Your task to perform on an android device: check data usage Image 0: 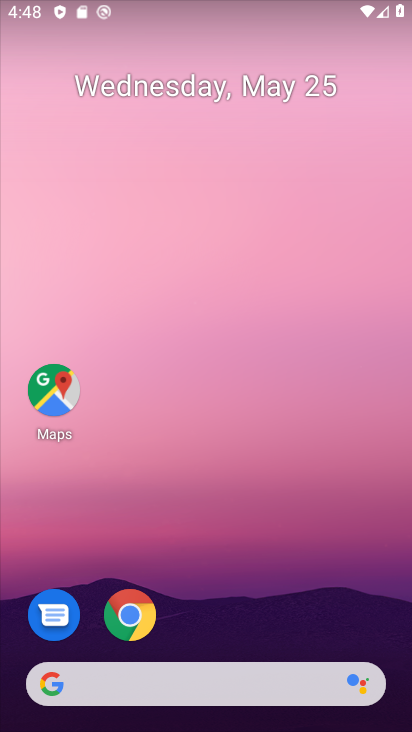
Step 0: press home button
Your task to perform on an android device: check data usage Image 1: 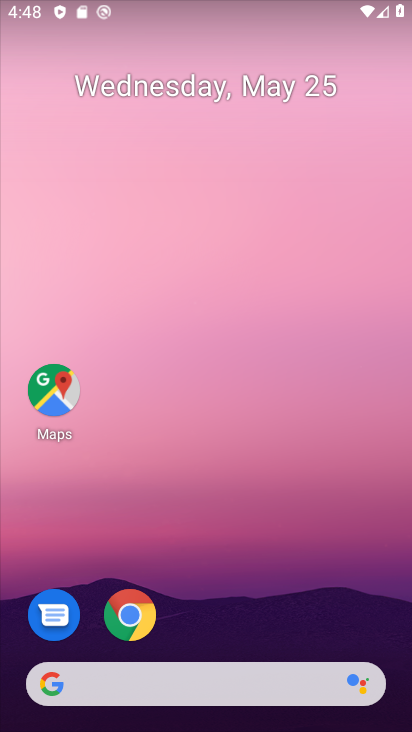
Step 1: drag from (260, 610) to (252, 52)
Your task to perform on an android device: check data usage Image 2: 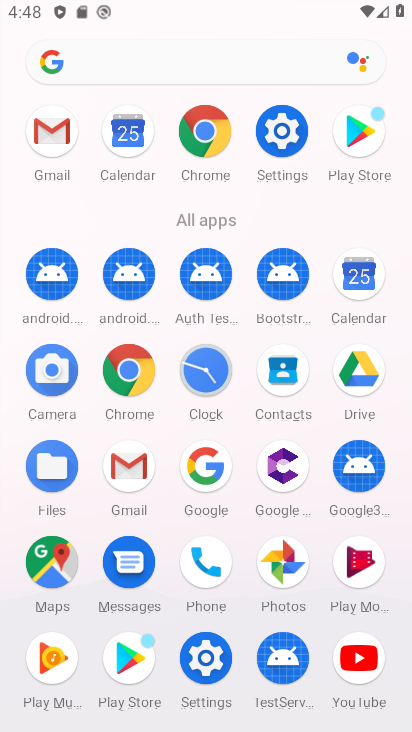
Step 2: drag from (274, 36) to (171, 699)
Your task to perform on an android device: check data usage Image 3: 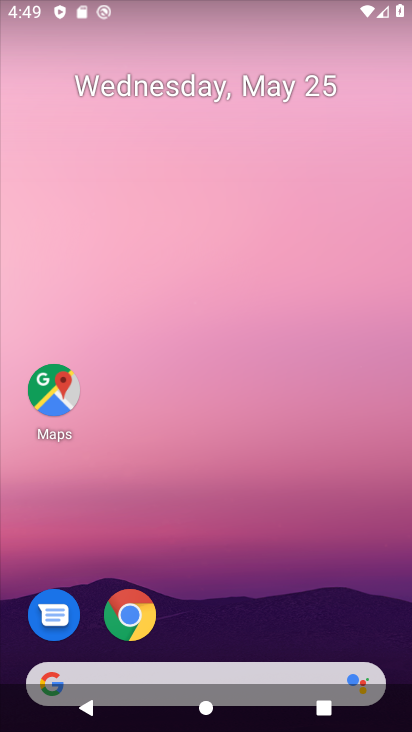
Step 3: drag from (238, 1) to (267, 621)
Your task to perform on an android device: check data usage Image 4: 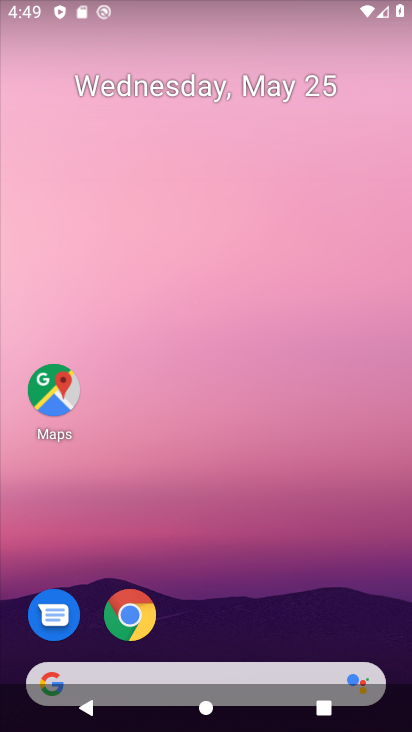
Step 4: drag from (190, 42) to (165, 731)
Your task to perform on an android device: check data usage Image 5: 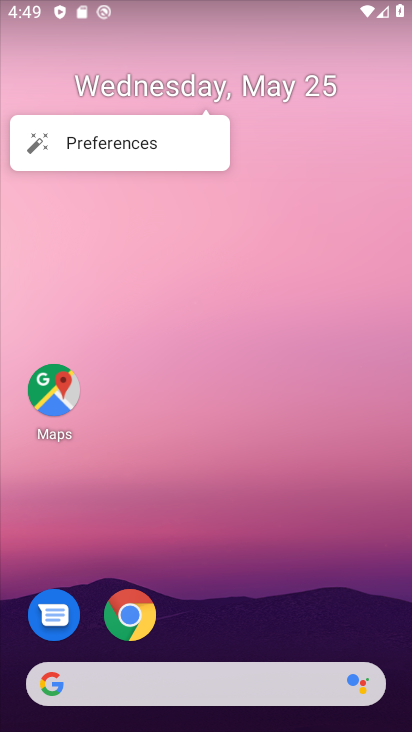
Step 5: drag from (258, 0) to (164, 729)
Your task to perform on an android device: check data usage Image 6: 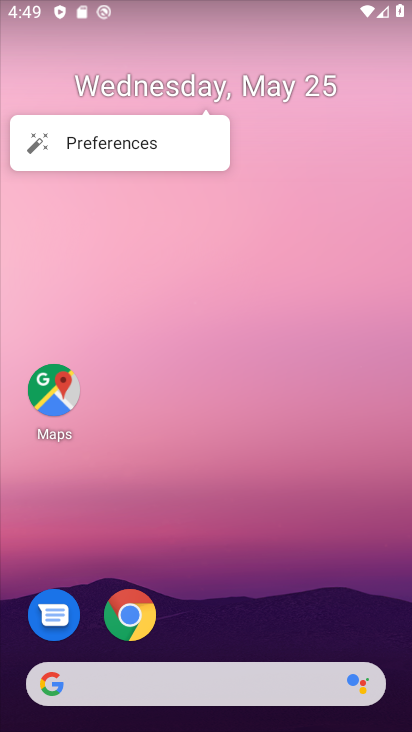
Step 6: drag from (199, 3) to (181, 723)
Your task to perform on an android device: check data usage Image 7: 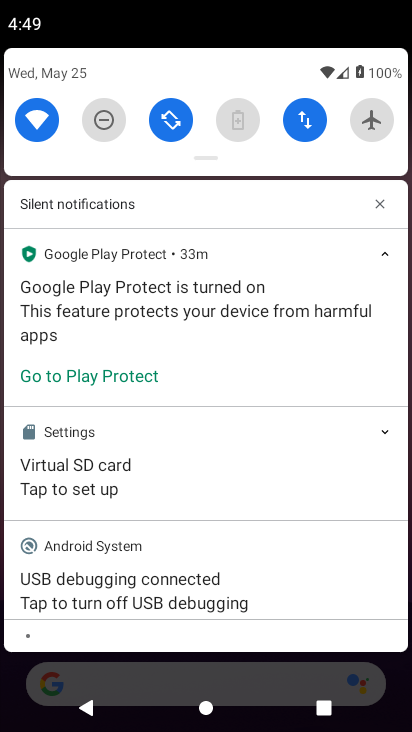
Step 7: click (306, 116)
Your task to perform on an android device: check data usage Image 8: 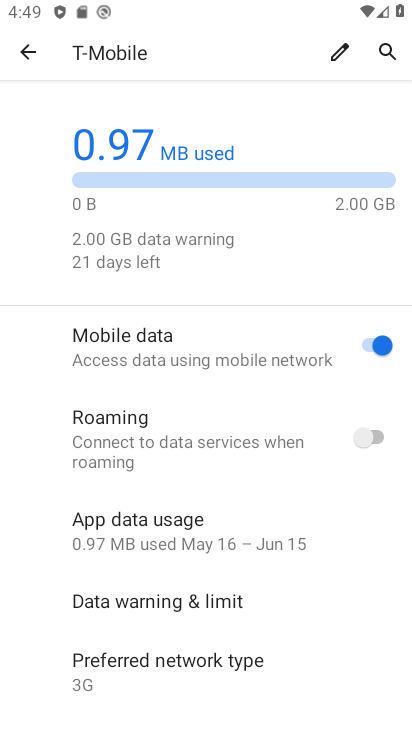
Step 8: task complete